Your task to perform on an android device: Open Google Chrome and click the shortcut for Amazon.com Image 0: 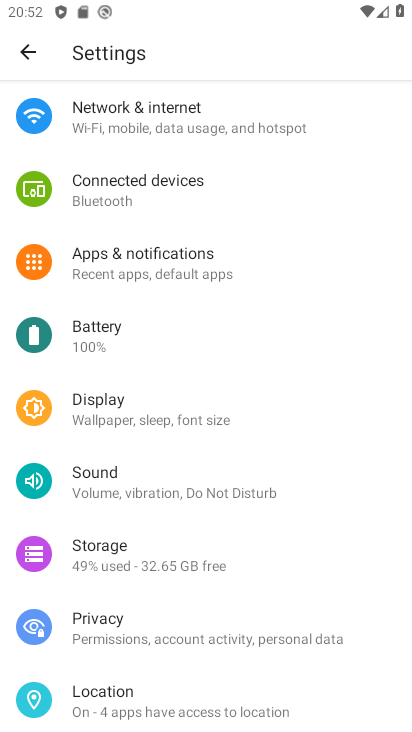
Step 0: press home button
Your task to perform on an android device: Open Google Chrome and click the shortcut for Amazon.com Image 1: 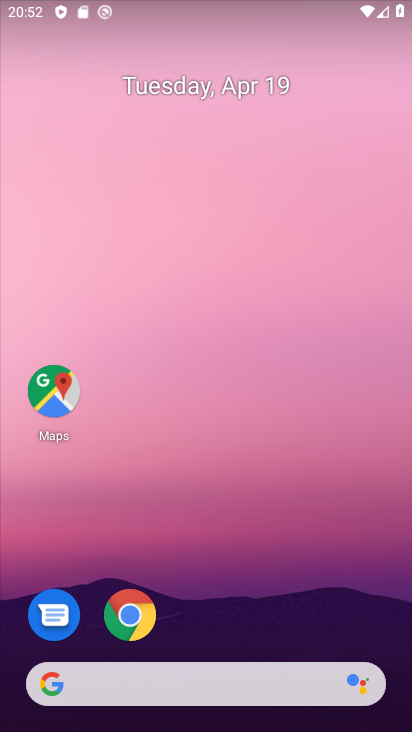
Step 1: drag from (234, 652) to (306, 311)
Your task to perform on an android device: Open Google Chrome and click the shortcut for Amazon.com Image 2: 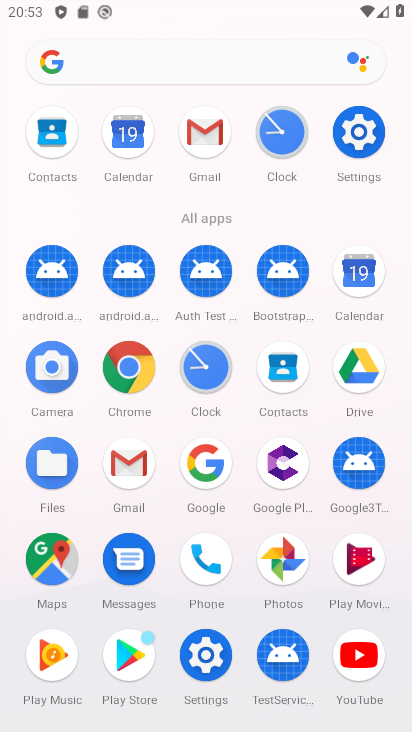
Step 2: click (126, 362)
Your task to perform on an android device: Open Google Chrome and click the shortcut for Amazon.com Image 3: 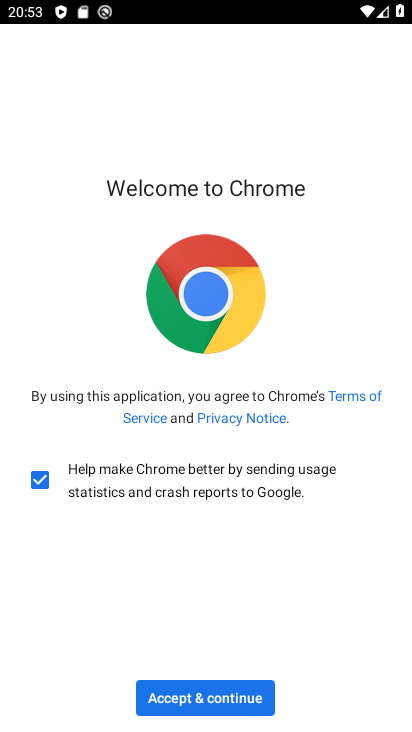
Step 3: click (194, 701)
Your task to perform on an android device: Open Google Chrome and click the shortcut for Amazon.com Image 4: 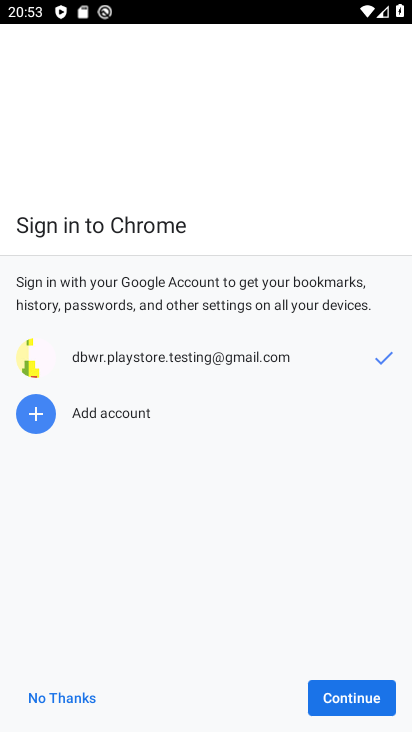
Step 4: click (339, 707)
Your task to perform on an android device: Open Google Chrome and click the shortcut for Amazon.com Image 5: 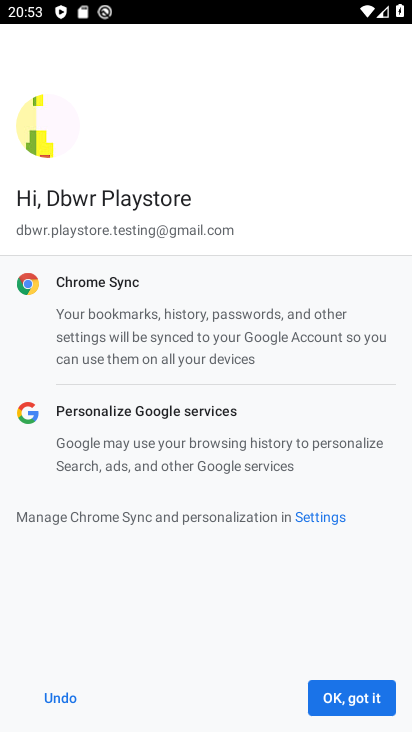
Step 5: click (339, 707)
Your task to perform on an android device: Open Google Chrome and click the shortcut for Amazon.com Image 6: 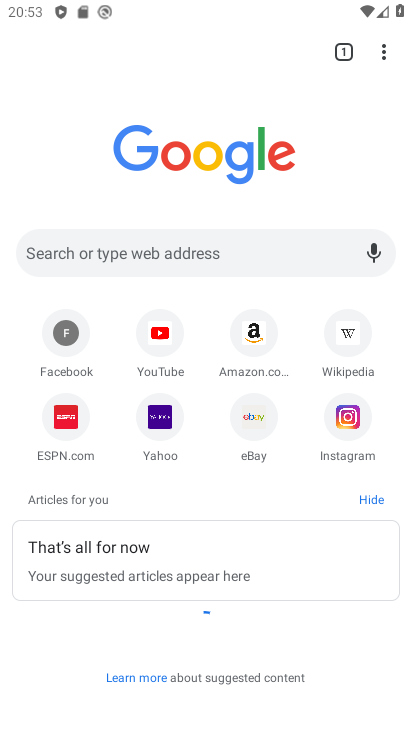
Step 6: click (250, 333)
Your task to perform on an android device: Open Google Chrome and click the shortcut for Amazon.com Image 7: 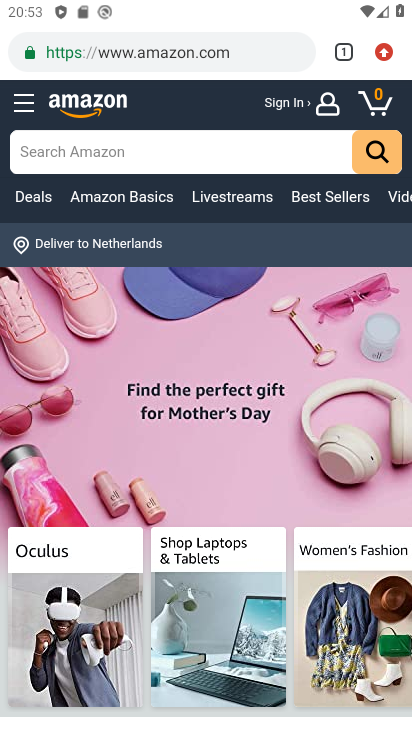
Step 7: task complete